Your task to perform on an android device: Open network settings Image 0: 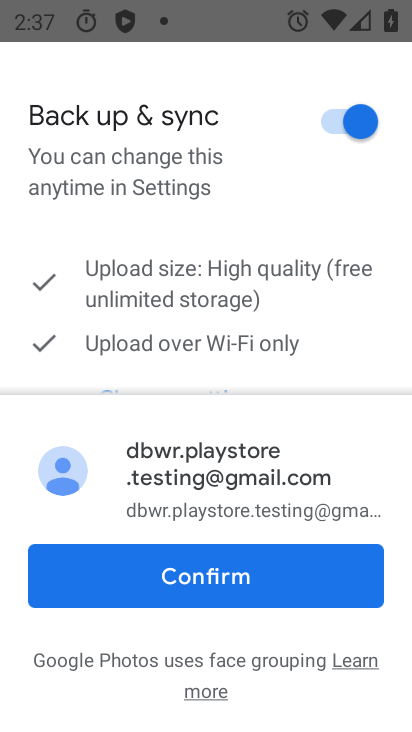
Step 0: press home button
Your task to perform on an android device: Open network settings Image 1: 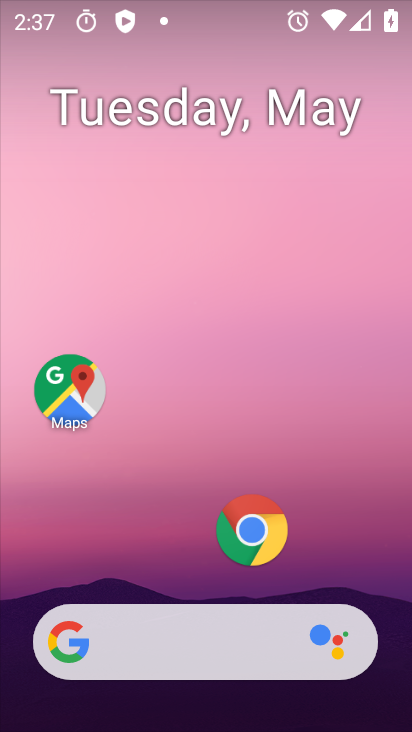
Step 1: drag from (190, 595) to (78, 25)
Your task to perform on an android device: Open network settings Image 2: 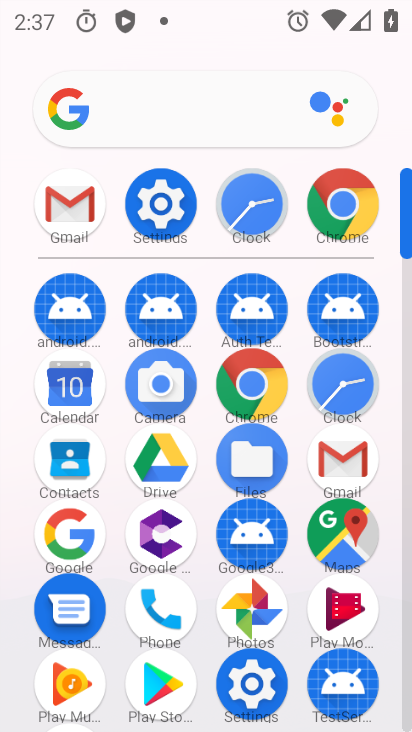
Step 2: click (142, 190)
Your task to perform on an android device: Open network settings Image 3: 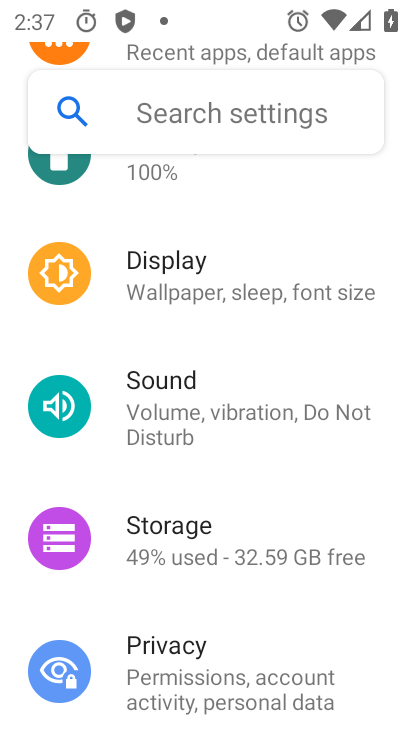
Step 3: drag from (158, 221) to (128, 583)
Your task to perform on an android device: Open network settings Image 4: 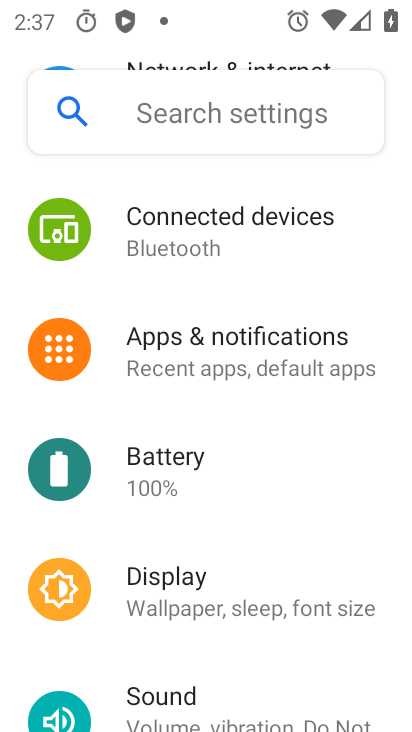
Step 4: drag from (155, 235) to (144, 633)
Your task to perform on an android device: Open network settings Image 5: 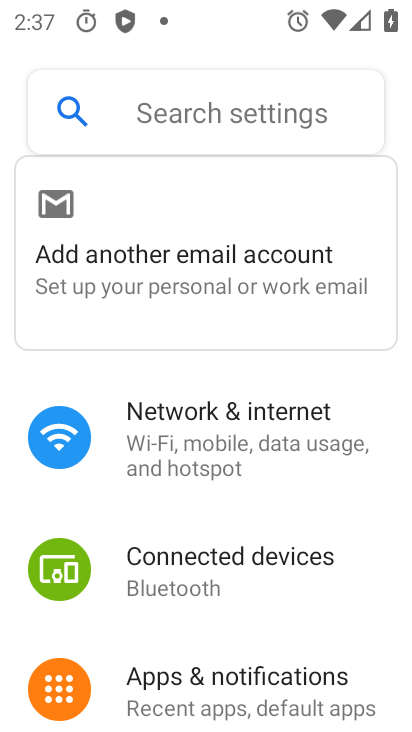
Step 5: click (149, 309)
Your task to perform on an android device: Open network settings Image 6: 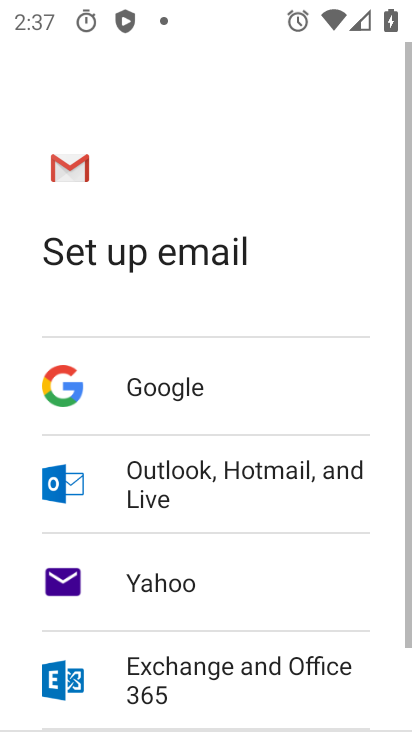
Step 6: press back button
Your task to perform on an android device: Open network settings Image 7: 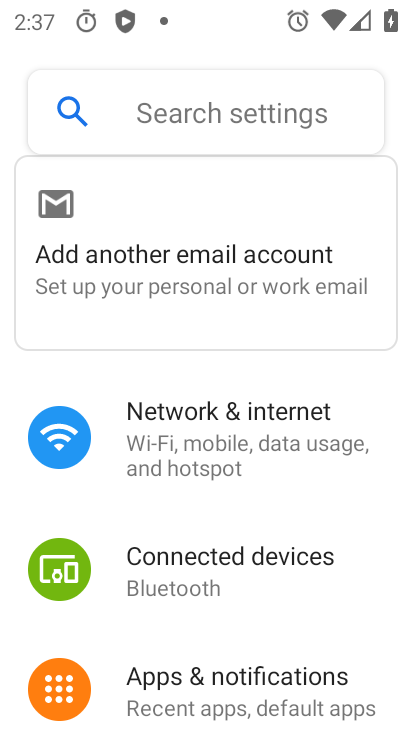
Step 7: click (182, 416)
Your task to perform on an android device: Open network settings Image 8: 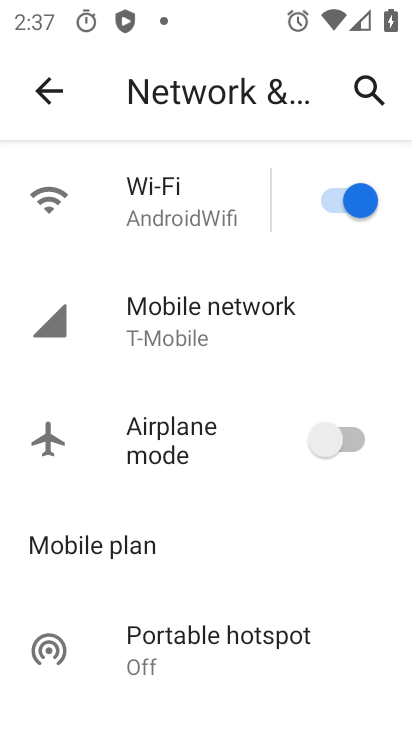
Step 8: click (203, 341)
Your task to perform on an android device: Open network settings Image 9: 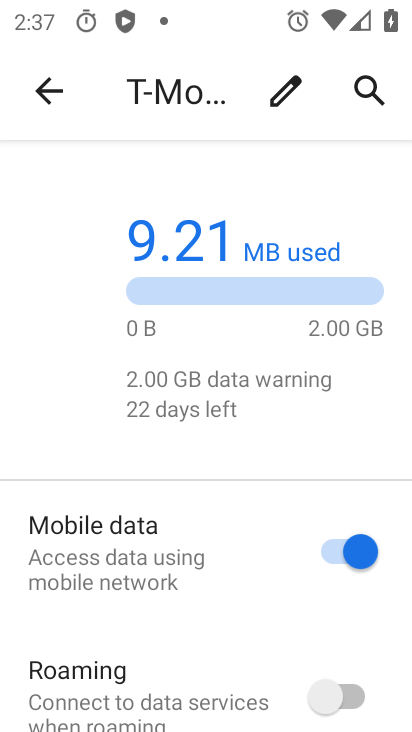
Step 9: task complete